Your task to perform on an android device: turn on javascript in the chrome app Image 0: 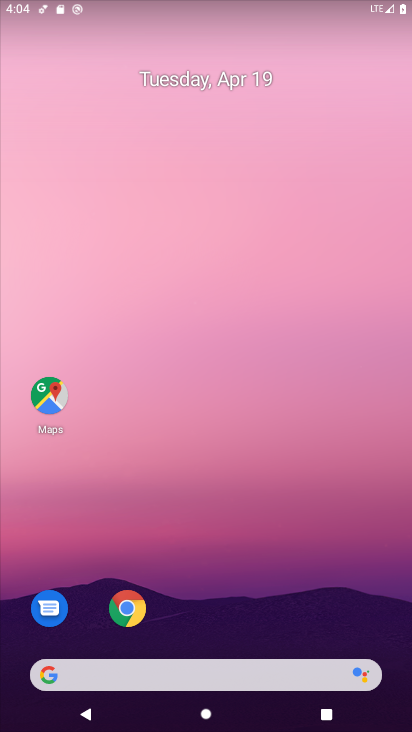
Step 0: drag from (210, 616) to (243, 88)
Your task to perform on an android device: turn on javascript in the chrome app Image 1: 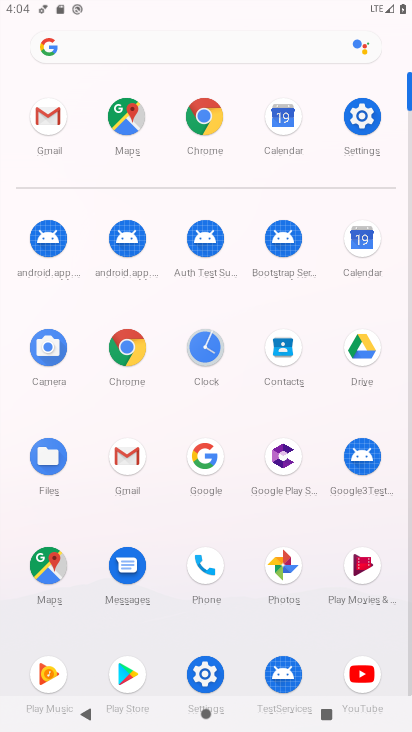
Step 1: click (121, 356)
Your task to perform on an android device: turn on javascript in the chrome app Image 2: 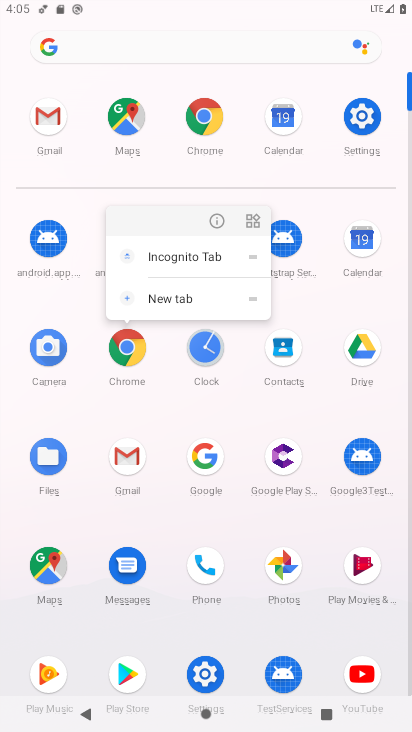
Step 2: click (121, 356)
Your task to perform on an android device: turn on javascript in the chrome app Image 3: 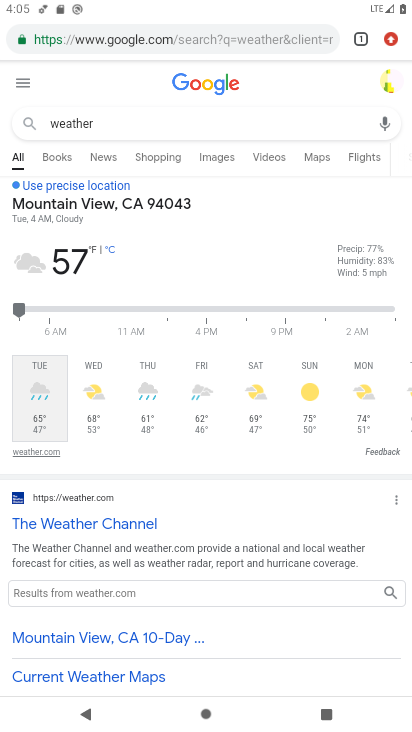
Step 3: click (403, 34)
Your task to perform on an android device: turn on javascript in the chrome app Image 4: 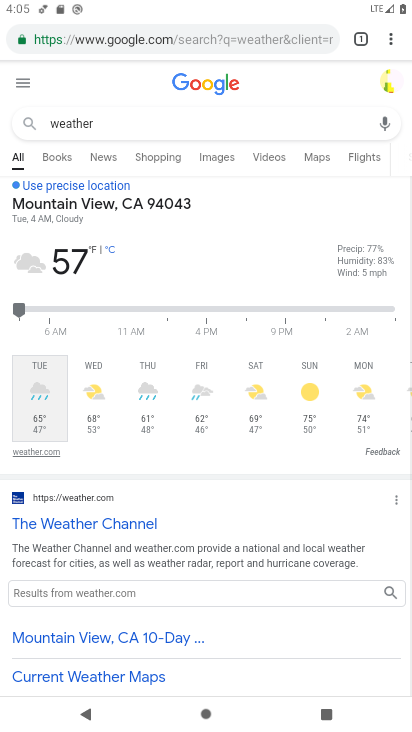
Step 4: click (391, 36)
Your task to perform on an android device: turn on javascript in the chrome app Image 5: 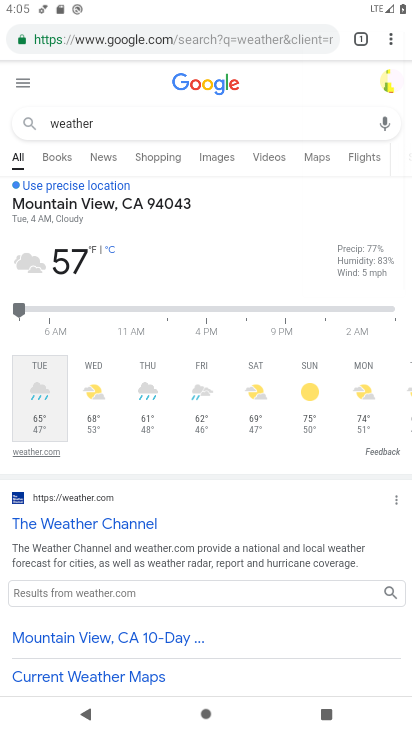
Step 5: drag from (391, 36) to (252, 481)
Your task to perform on an android device: turn on javascript in the chrome app Image 6: 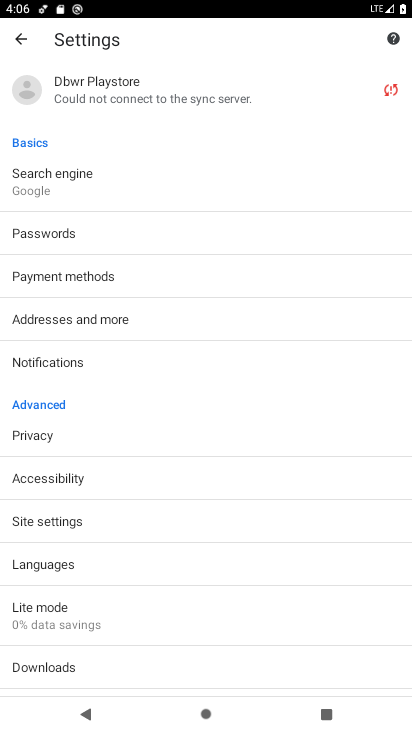
Step 6: drag from (144, 506) to (161, 351)
Your task to perform on an android device: turn on javascript in the chrome app Image 7: 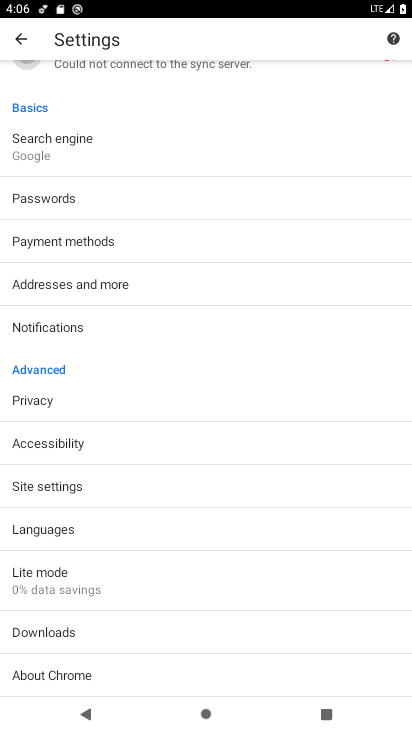
Step 7: click (60, 485)
Your task to perform on an android device: turn on javascript in the chrome app Image 8: 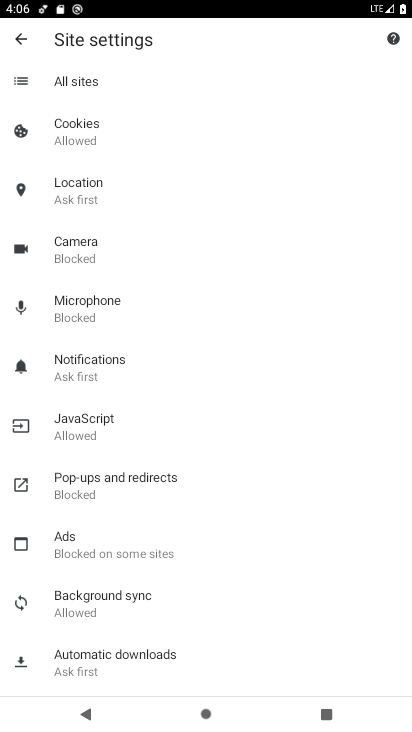
Step 8: click (91, 423)
Your task to perform on an android device: turn on javascript in the chrome app Image 9: 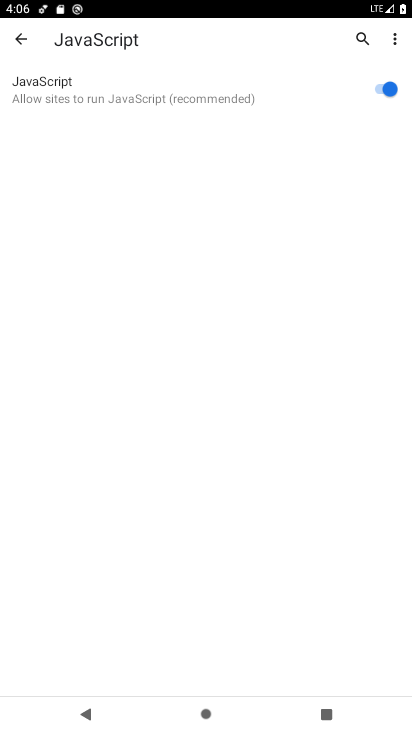
Step 9: task complete